Your task to perform on an android device: add a contact Image 0: 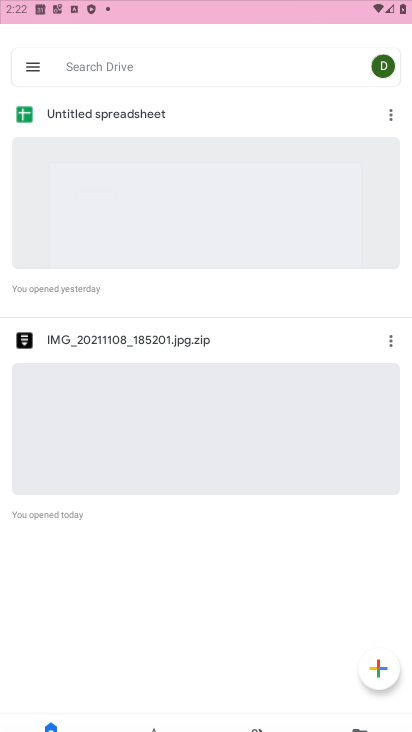
Step 0: click (214, 238)
Your task to perform on an android device: add a contact Image 1: 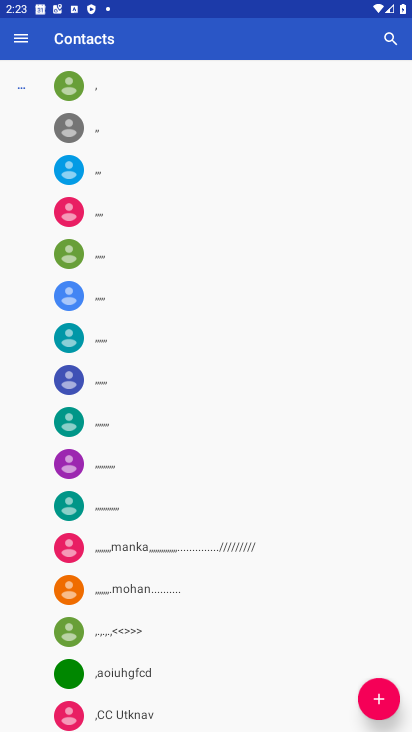
Step 1: press home button
Your task to perform on an android device: add a contact Image 2: 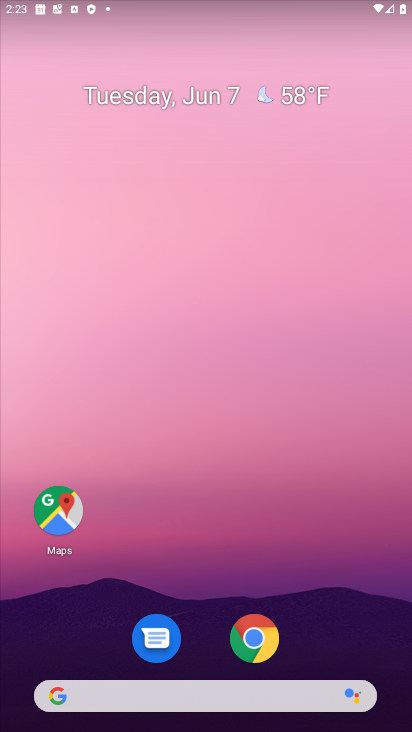
Step 2: drag from (209, 653) to (259, 233)
Your task to perform on an android device: add a contact Image 3: 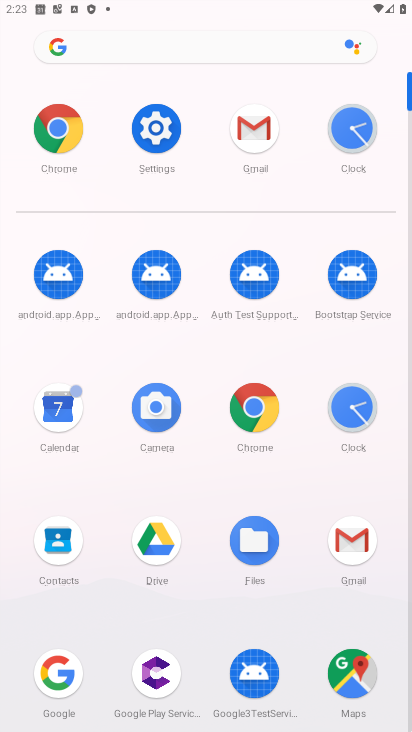
Step 3: drag from (240, 615) to (345, 162)
Your task to perform on an android device: add a contact Image 4: 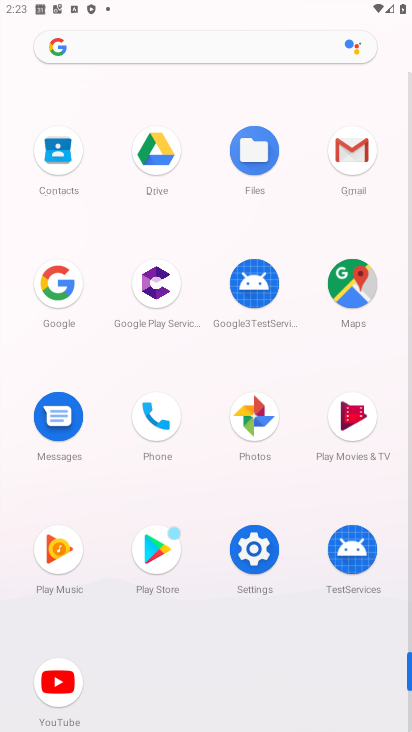
Step 4: click (70, 149)
Your task to perform on an android device: add a contact Image 5: 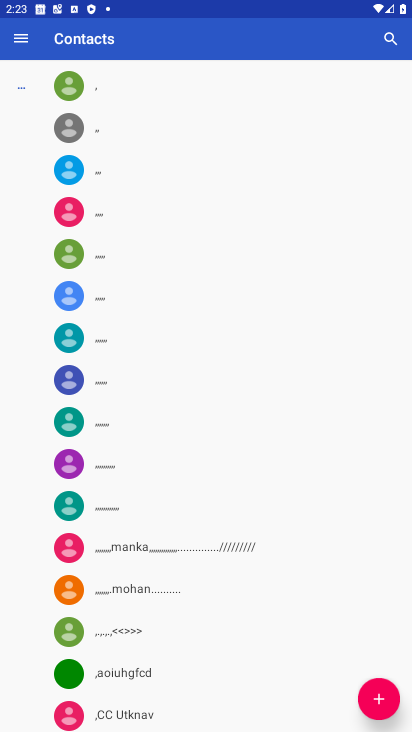
Step 5: click (389, 706)
Your task to perform on an android device: add a contact Image 6: 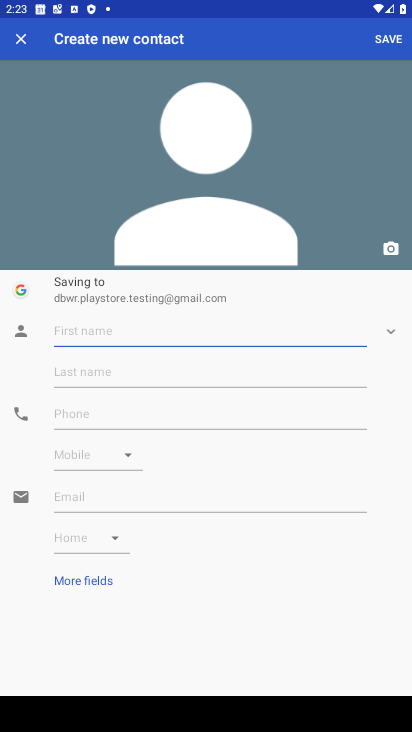
Step 6: type "mnko"
Your task to perform on an android device: add a contact Image 7: 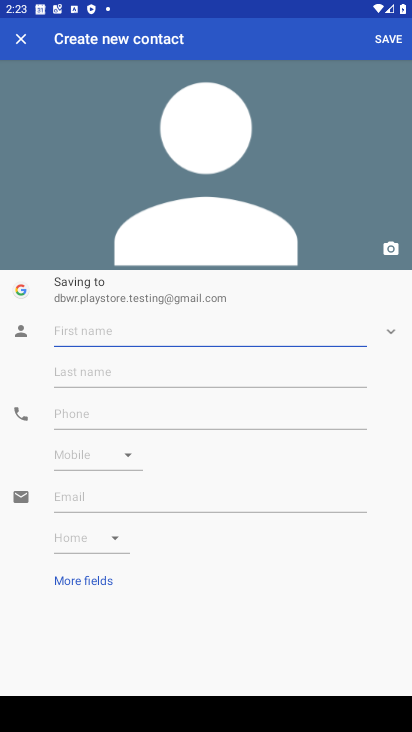
Step 7: click (208, 363)
Your task to perform on an android device: add a contact Image 8: 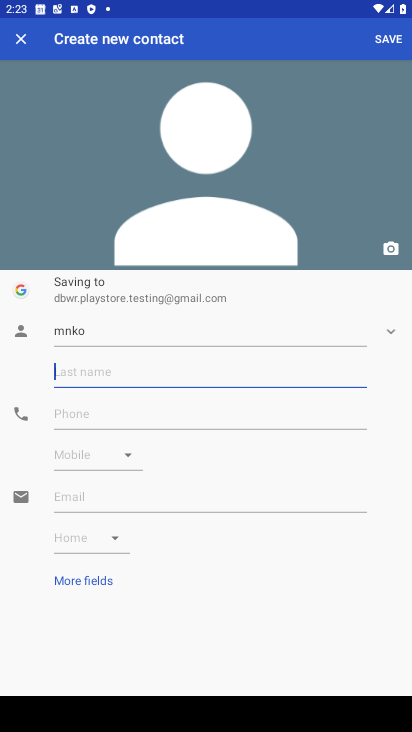
Step 8: type "opu"
Your task to perform on an android device: add a contact Image 9: 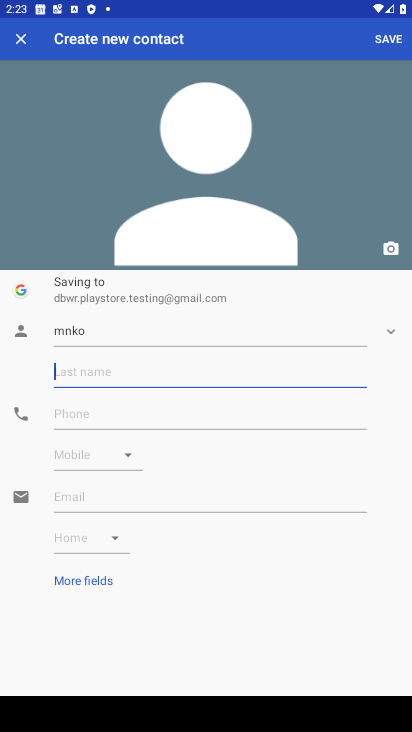
Step 9: click (132, 413)
Your task to perform on an android device: add a contact Image 10: 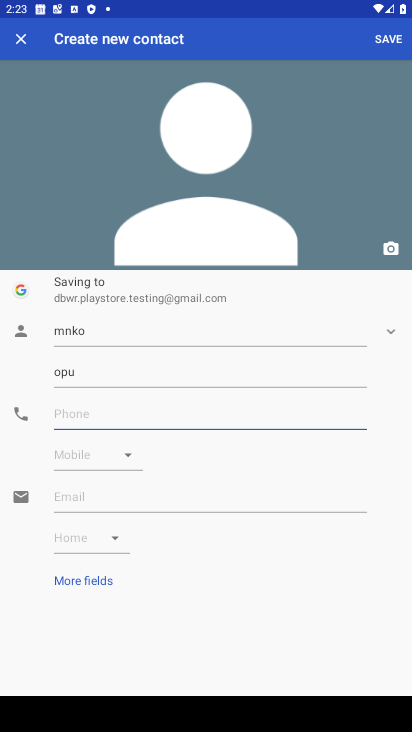
Step 10: type "67789898"
Your task to perform on an android device: add a contact Image 11: 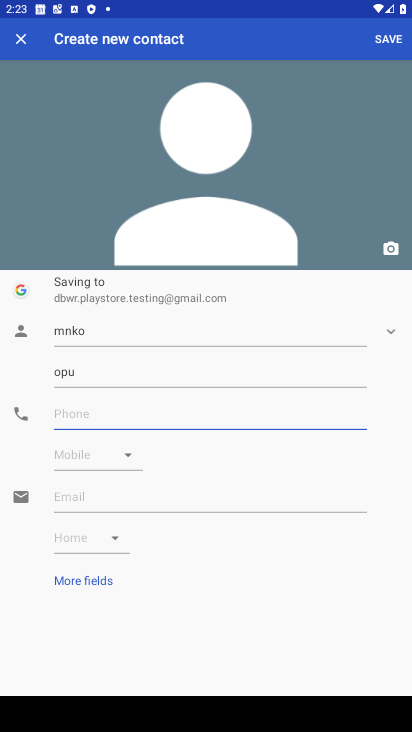
Step 11: click (356, 486)
Your task to perform on an android device: add a contact Image 12: 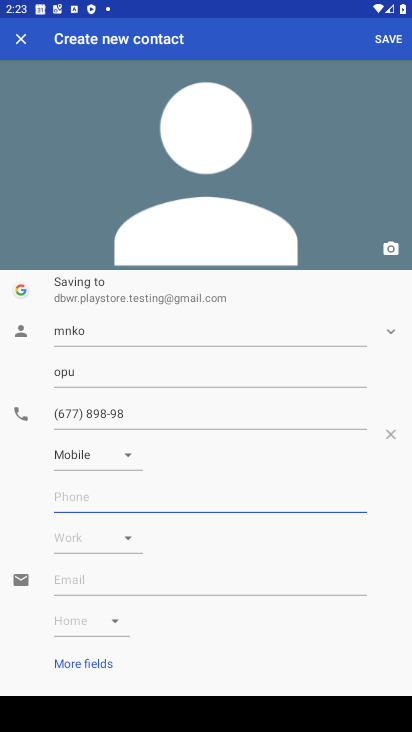
Step 12: click (407, 31)
Your task to perform on an android device: add a contact Image 13: 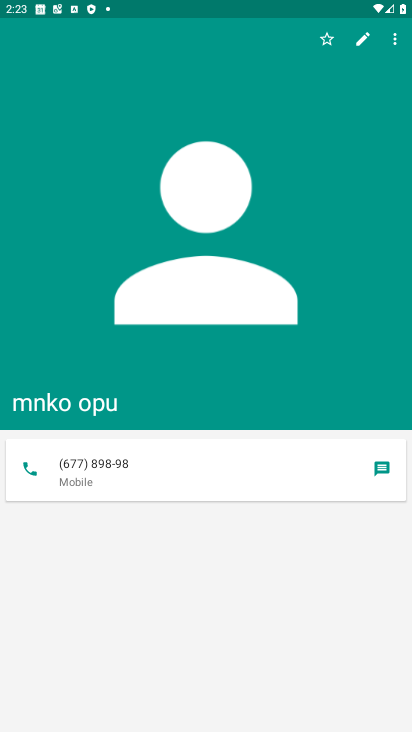
Step 13: task complete